Your task to perform on an android device: turn on sleep mode Image 0: 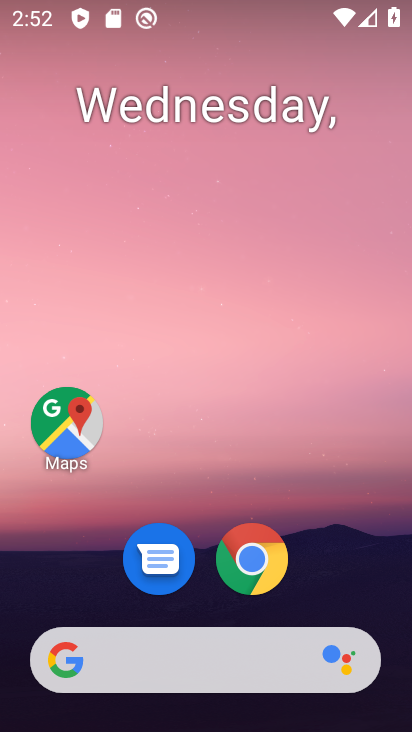
Step 0: drag from (114, 94) to (108, 1)
Your task to perform on an android device: turn on sleep mode Image 1: 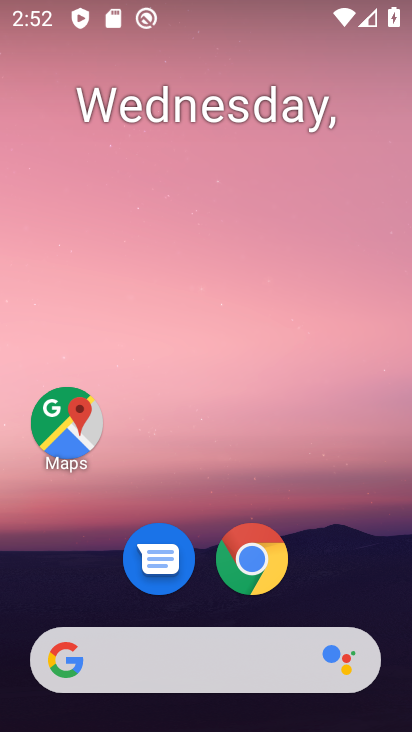
Step 1: drag from (204, 546) to (178, 16)
Your task to perform on an android device: turn on sleep mode Image 2: 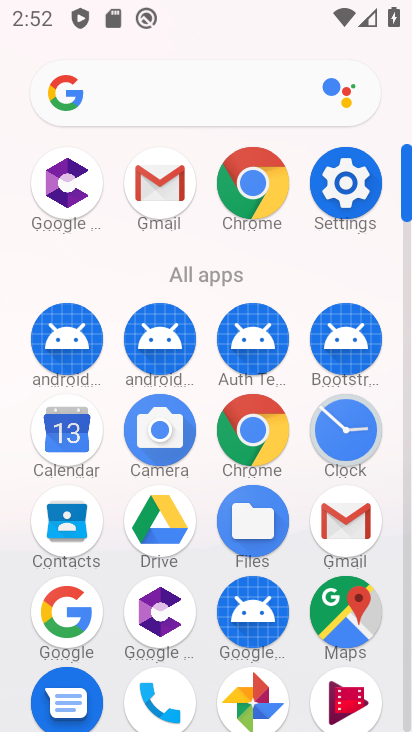
Step 2: click (336, 168)
Your task to perform on an android device: turn on sleep mode Image 3: 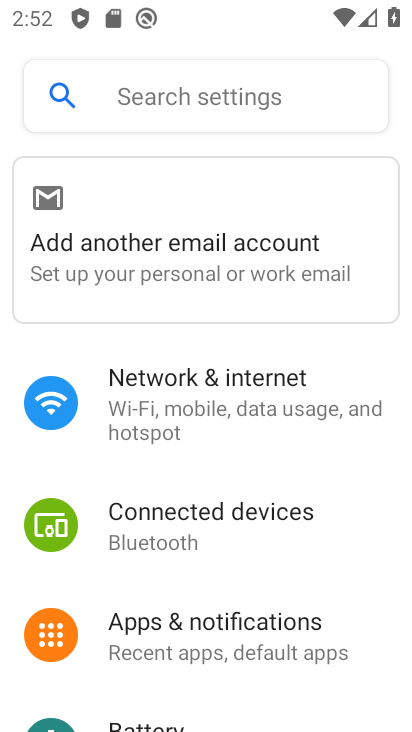
Step 3: click (163, 95)
Your task to perform on an android device: turn on sleep mode Image 4: 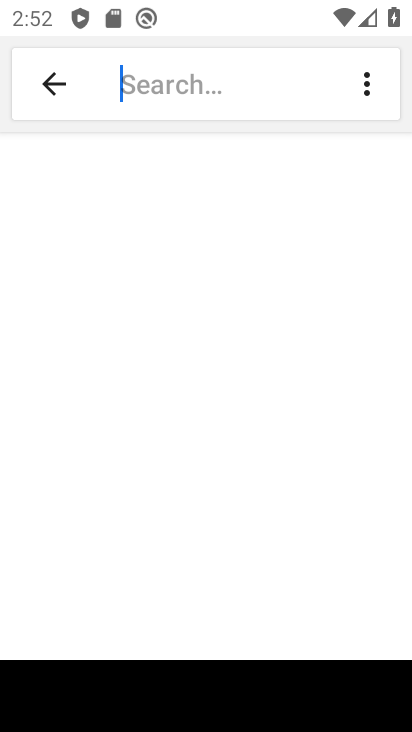
Step 4: type "sleep mode"
Your task to perform on an android device: turn on sleep mode Image 5: 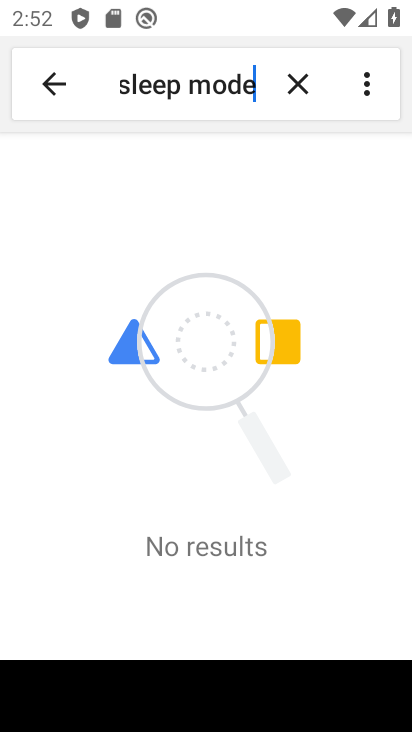
Step 5: task complete